Your task to perform on an android device: Set the phone to "Do not disturb". Image 0: 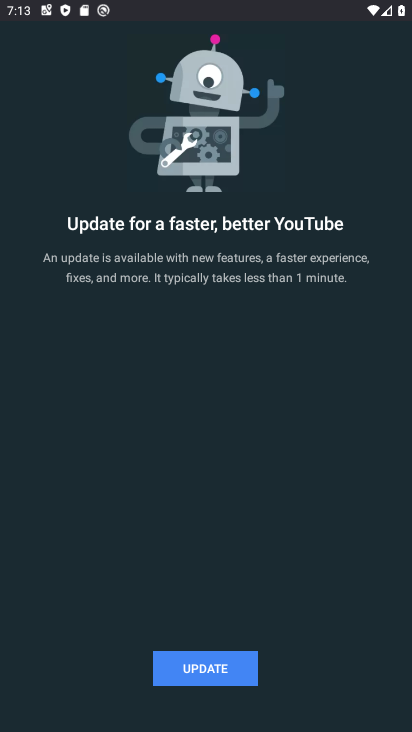
Step 0: press home button
Your task to perform on an android device: Set the phone to "Do not disturb". Image 1: 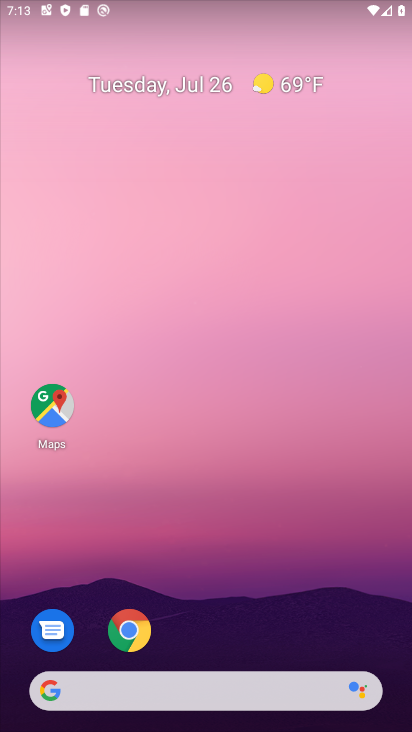
Step 1: drag from (211, 444) to (262, 130)
Your task to perform on an android device: Set the phone to "Do not disturb". Image 2: 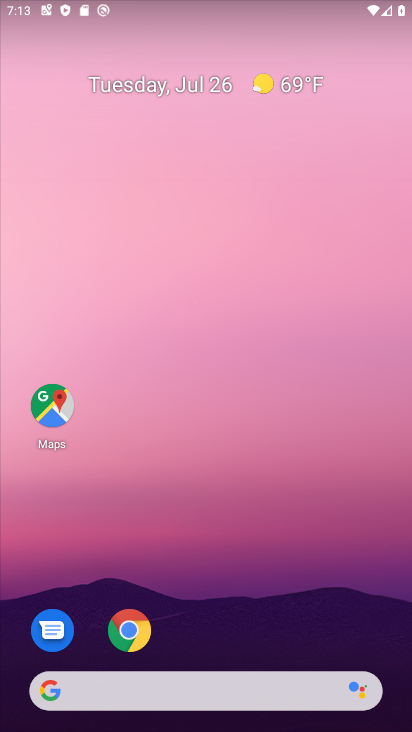
Step 2: drag from (228, 588) to (231, 92)
Your task to perform on an android device: Set the phone to "Do not disturb". Image 3: 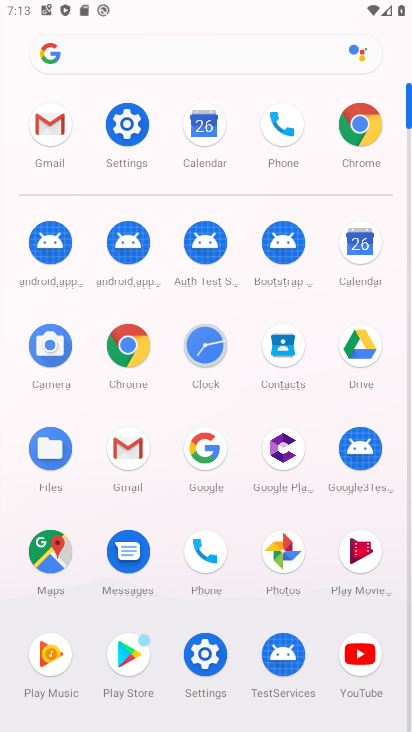
Step 3: click (220, 663)
Your task to perform on an android device: Set the phone to "Do not disturb". Image 4: 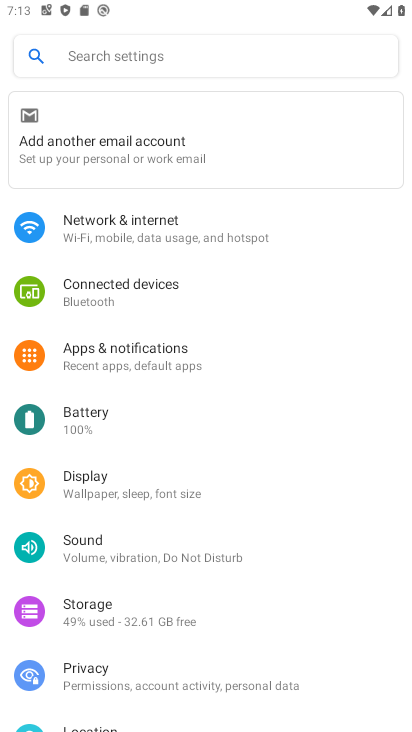
Step 4: drag from (205, 431) to (210, 249)
Your task to perform on an android device: Set the phone to "Do not disturb". Image 5: 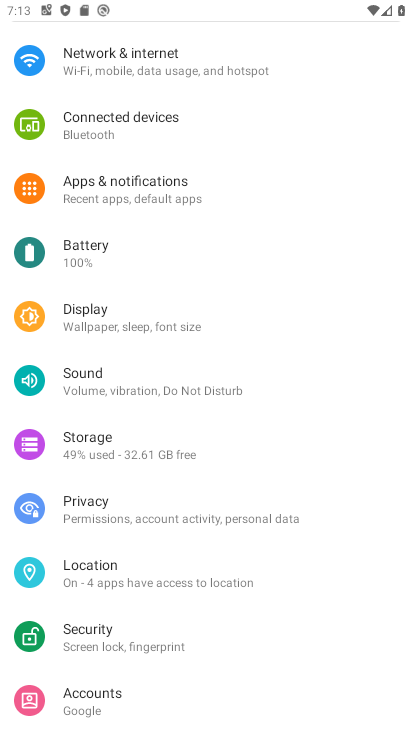
Step 5: click (204, 390)
Your task to perform on an android device: Set the phone to "Do not disturb". Image 6: 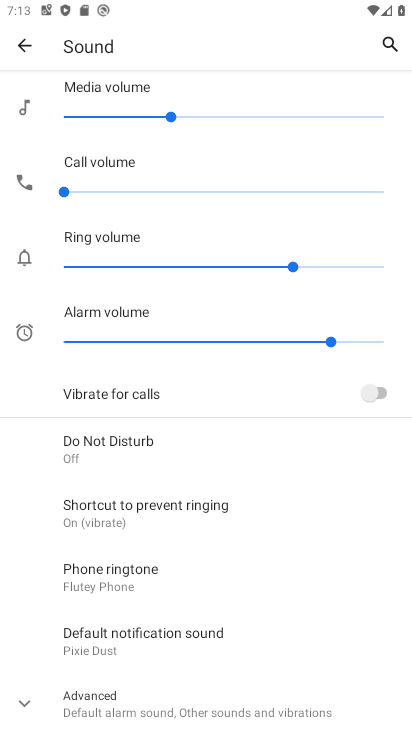
Step 6: click (233, 462)
Your task to perform on an android device: Set the phone to "Do not disturb". Image 7: 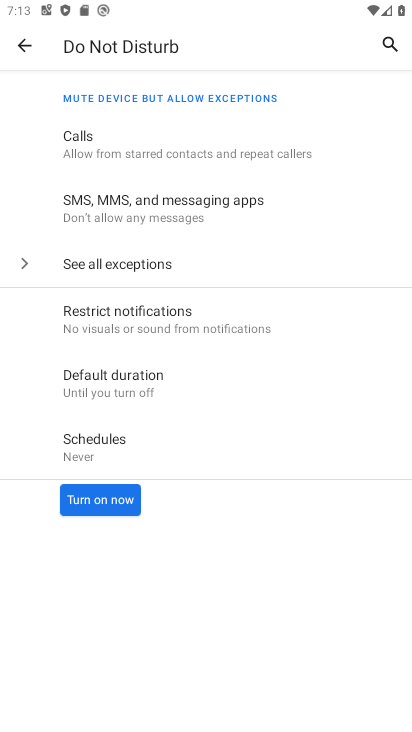
Step 7: click (121, 501)
Your task to perform on an android device: Set the phone to "Do not disturb". Image 8: 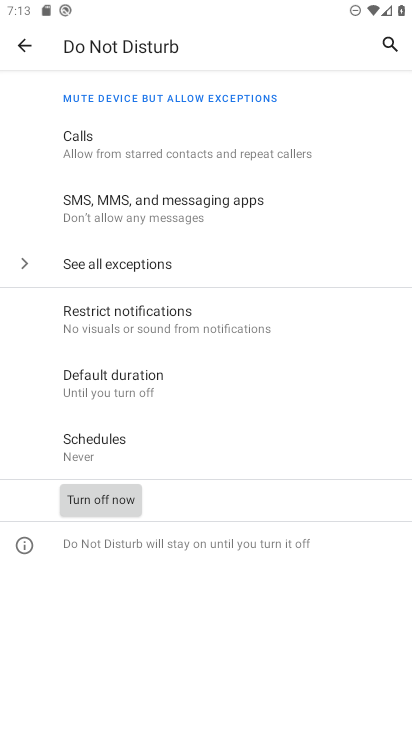
Step 8: task complete